Your task to perform on an android device: delete a single message in the gmail app Image 0: 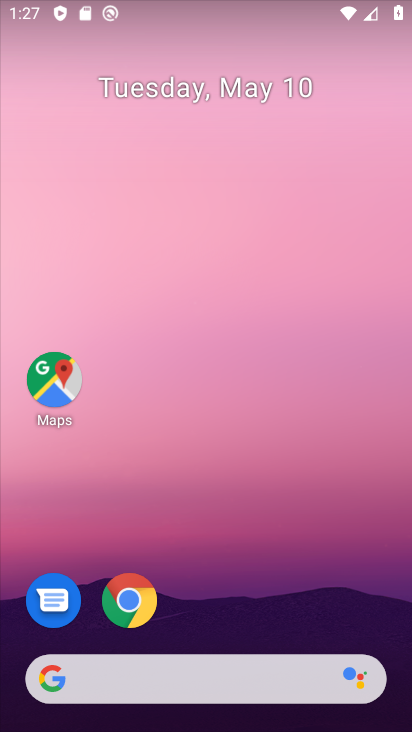
Step 0: drag from (180, 579) to (134, 88)
Your task to perform on an android device: delete a single message in the gmail app Image 1: 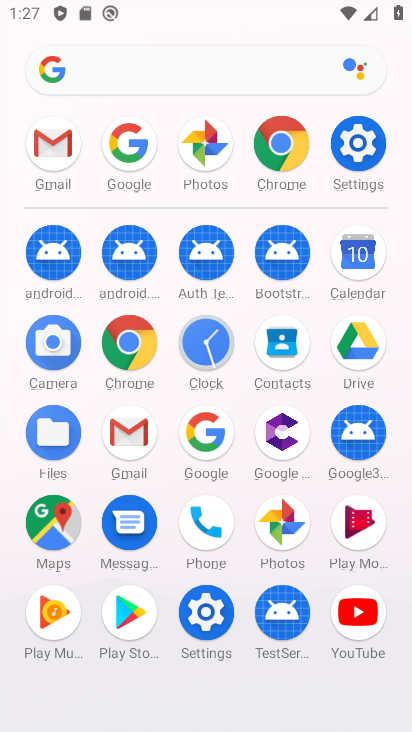
Step 1: click (146, 448)
Your task to perform on an android device: delete a single message in the gmail app Image 2: 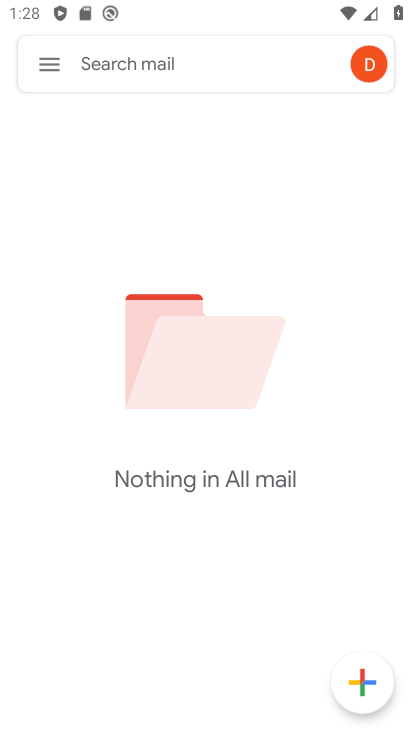
Step 2: task complete